Your task to perform on an android device: set default search engine in the chrome app Image 0: 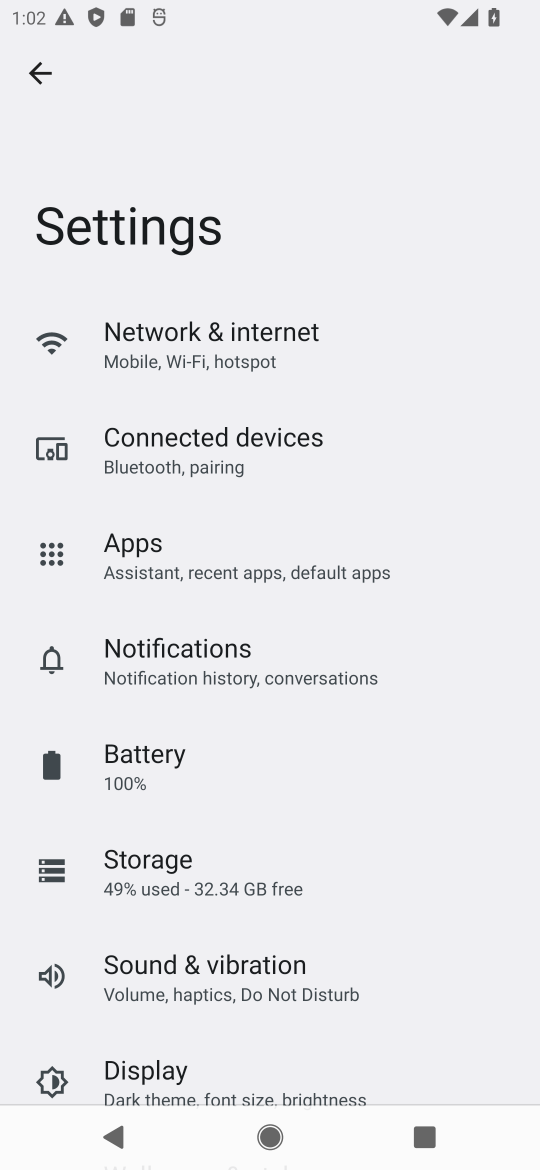
Step 0: press back button
Your task to perform on an android device: set default search engine in the chrome app Image 1: 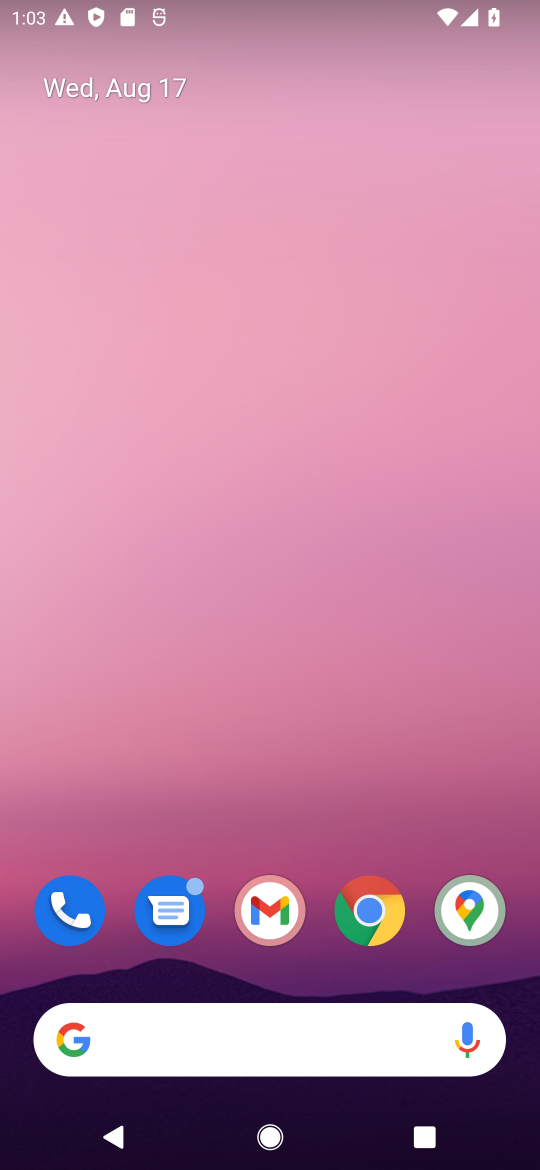
Step 1: click (373, 904)
Your task to perform on an android device: set default search engine in the chrome app Image 2: 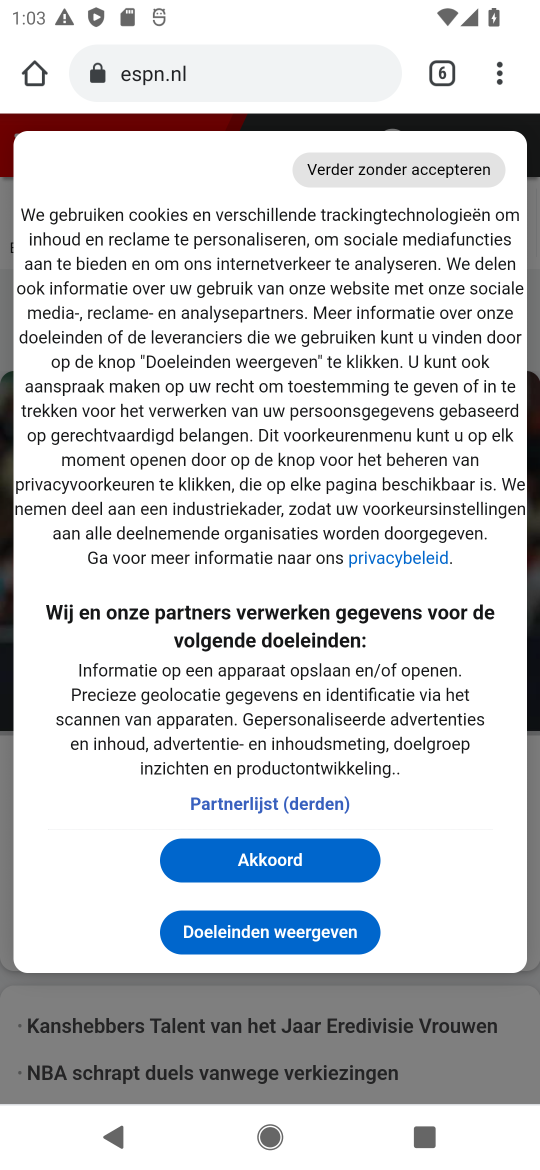
Step 2: drag from (498, 72) to (287, 931)
Your task to perform on an android device: set default search engine in the chrome app Image 3: 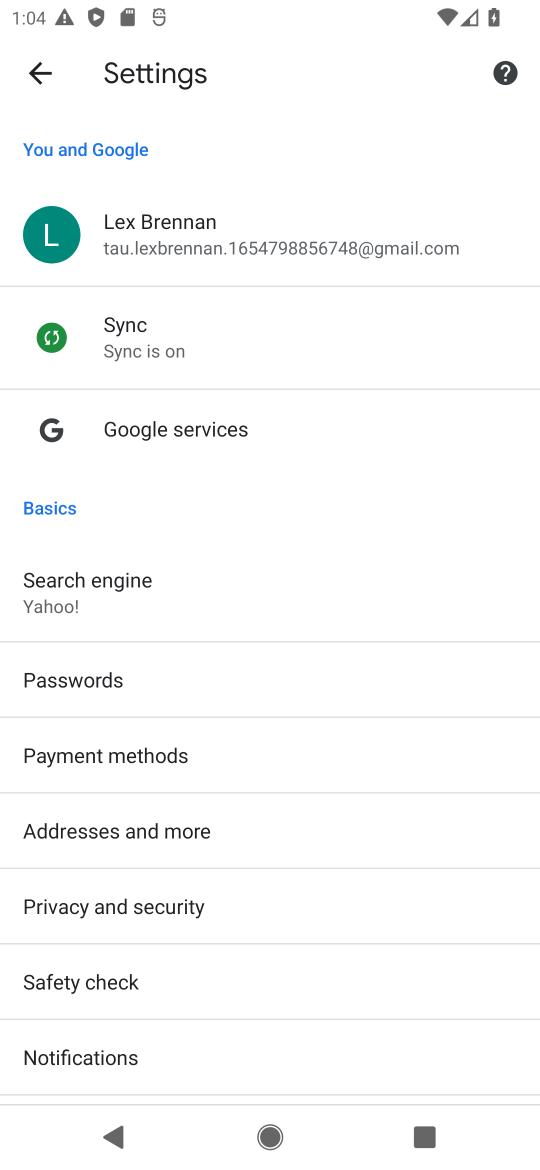
Step 3: click (131, 588)
Your task to perform on an android device: set default search engine in the chrome app Image 4: 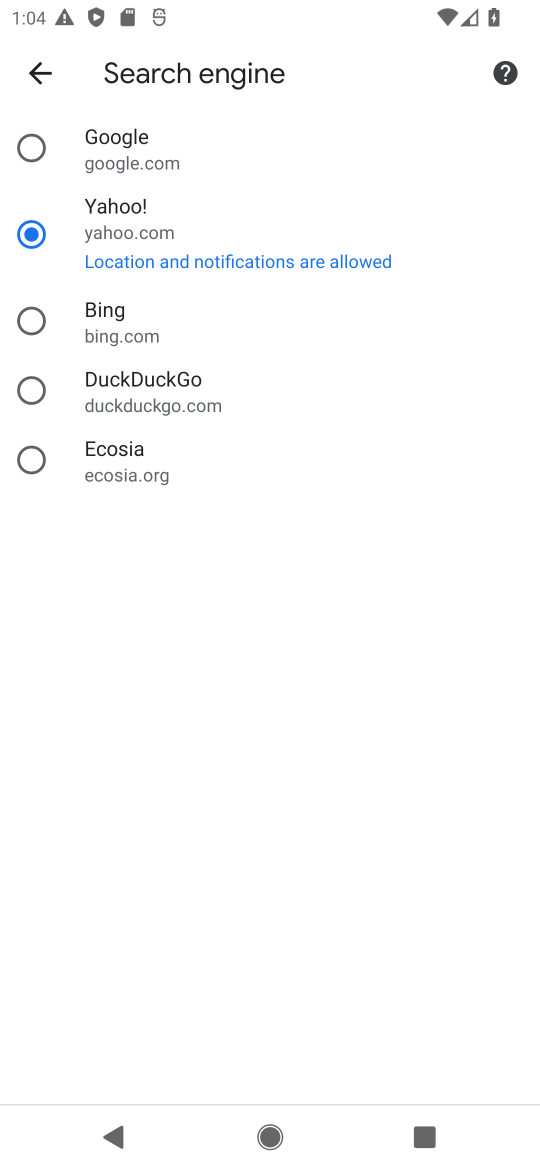
Step 4: click (50, 135)
Your task to perform on an android device: set default search engine in the chrome app Image 5: 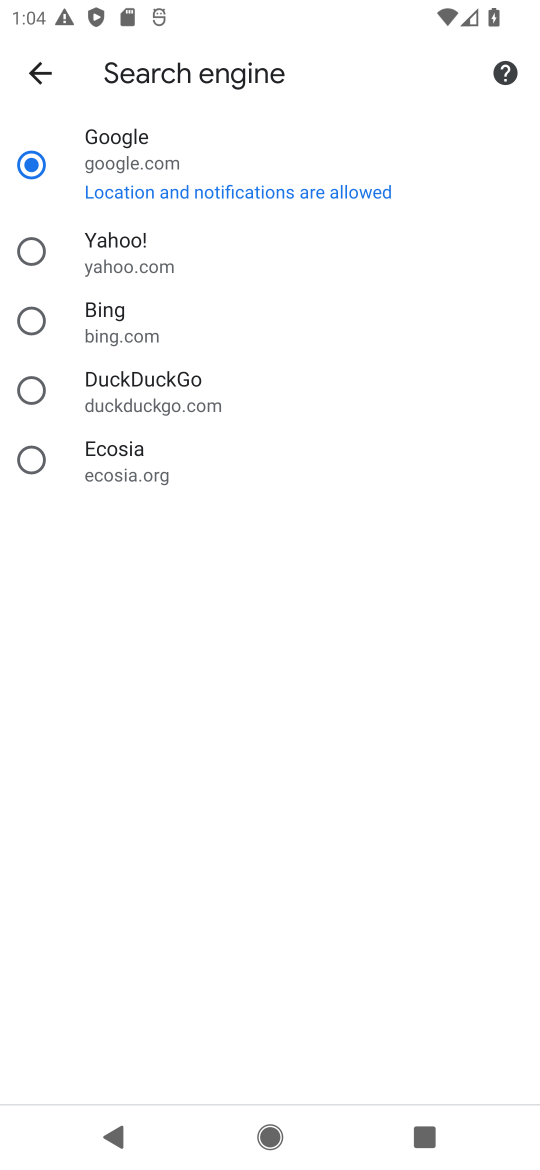
Step 5: task complete